Your task to perform on an android device: turn on priority inbox in the gmail app Image 0: 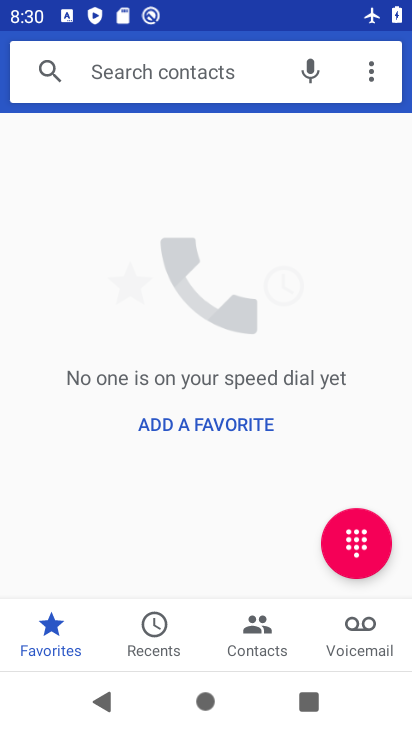
Step 0: press home button
Your task to perform on an android device: turn on priority inbox in the gmail app Image 1: 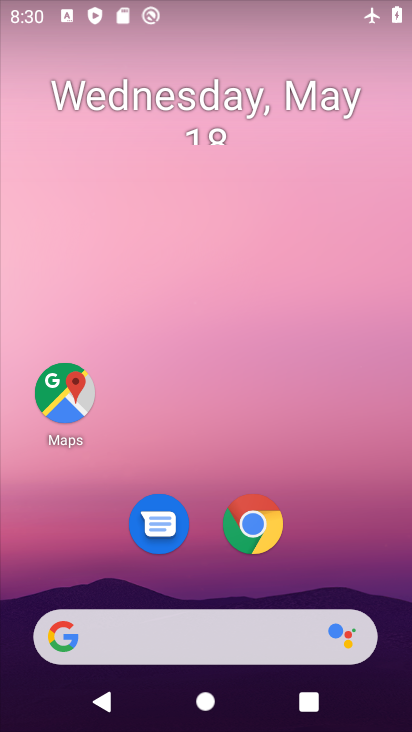
Step 1: drag from (220, 453) to (167, 26)
Your task to perform on an android device: turn on priority inbox in the gmail app Image 2: 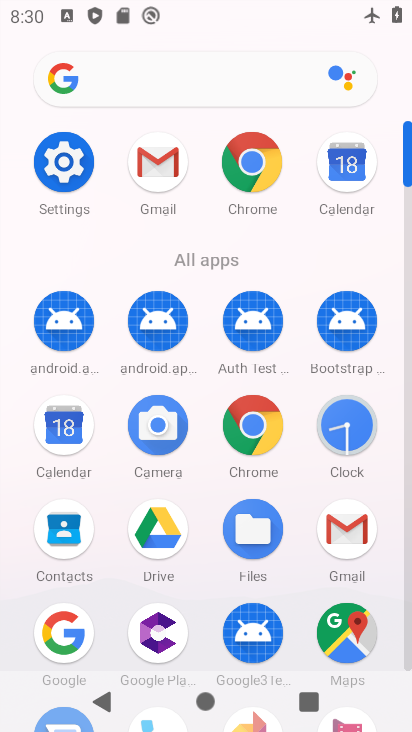
Step 2: click (156, 155)
Your task to perform on an android device: turn on priority inbox in the gmail app Image 3: 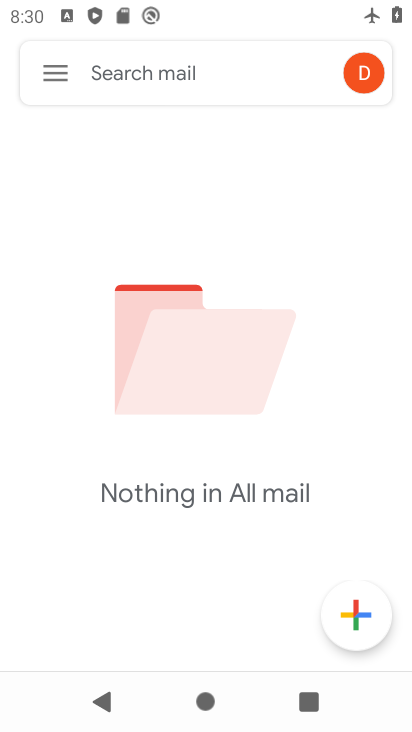
Step 3: click (55, 69)
Your task to perform on an android device: turn on priority inbox in the gmail app Image 4: 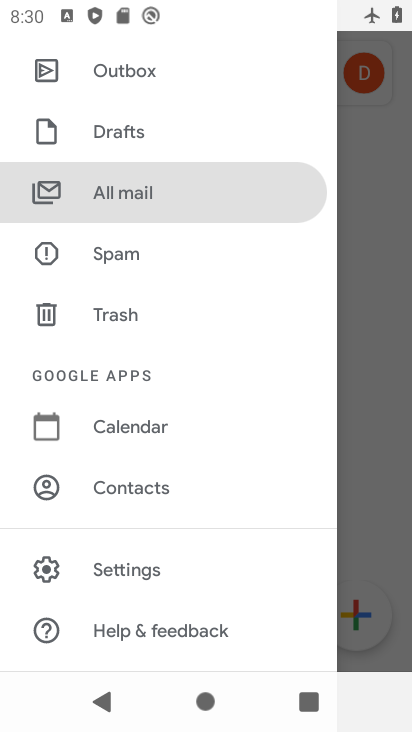
Step 4: click (137, 561)
Your task to perform on an android device: turn on priority inbox in the gmail app Image 5: 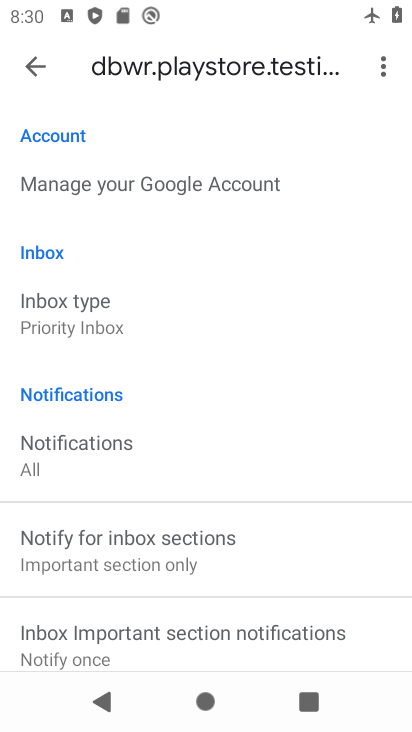
Step 5: task complete